Your task to perform on an android device: How do I get to the nearest Sprint Store? Image 0: 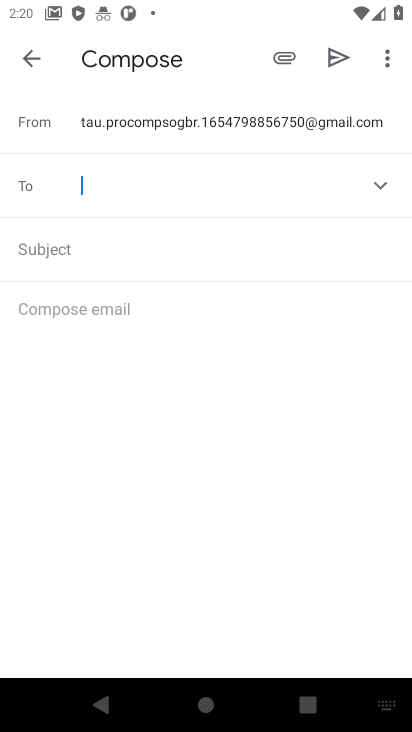
Step 0: press home button
Your task to perform on an android device: How do I get to the nearest Sprint Store? Image 1: 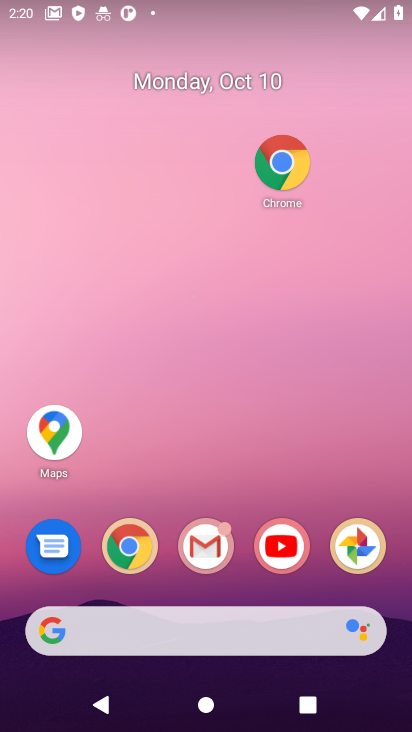
Step 1: click (130, 563)
Your task to perform on an android device: How do I get to the nearest Sprint Store? Image 2: 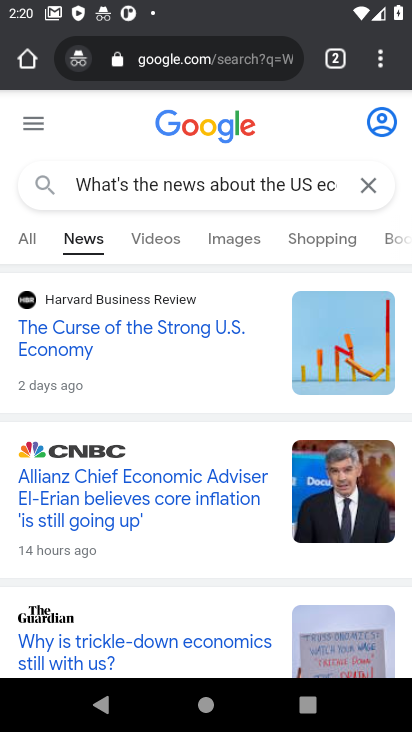
Step 2: click (150, 49)
Your task to perform on an android device: How do I get to the nearest Sprint Store? Image 3: 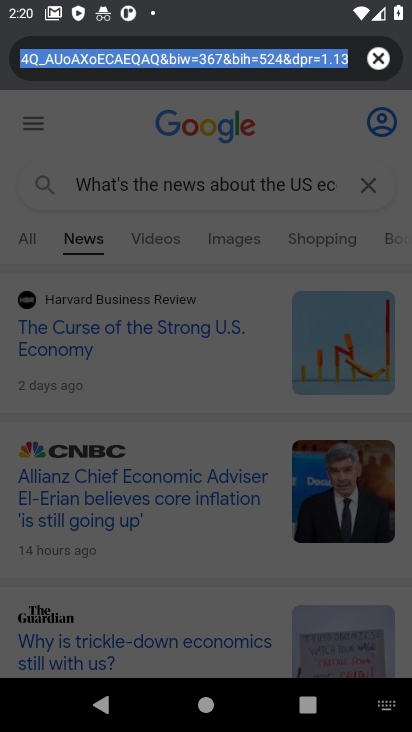
Step 3: click (383, 65)
Your task to perform on an android device: How do I get to the nearest Sprint Store? Image 4: 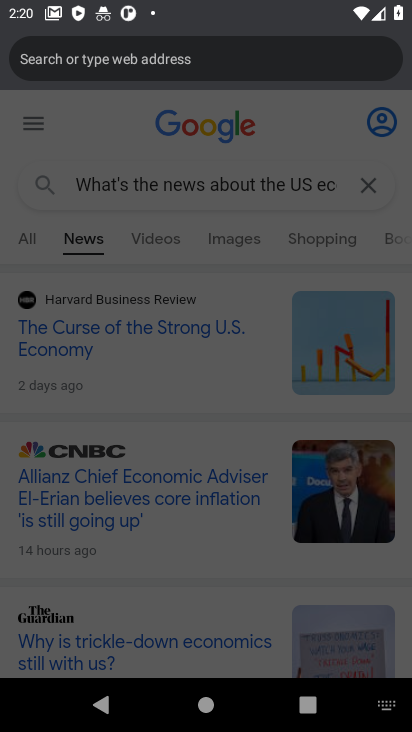
Step 4: type "How do I get to the nearest Sprint Store?"
Your task to perform on an android device: How do I get to the nearest Sprint Store? Image 5: 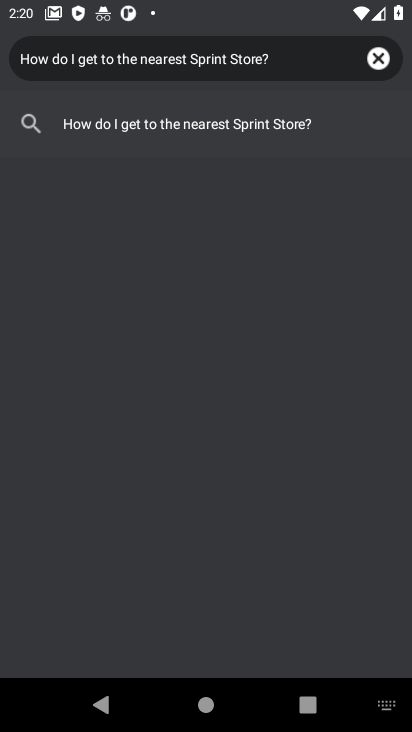
Step 5: type ""
Your task to perform on an android device: How do I get to the nearest Sprint Store? Image 6: 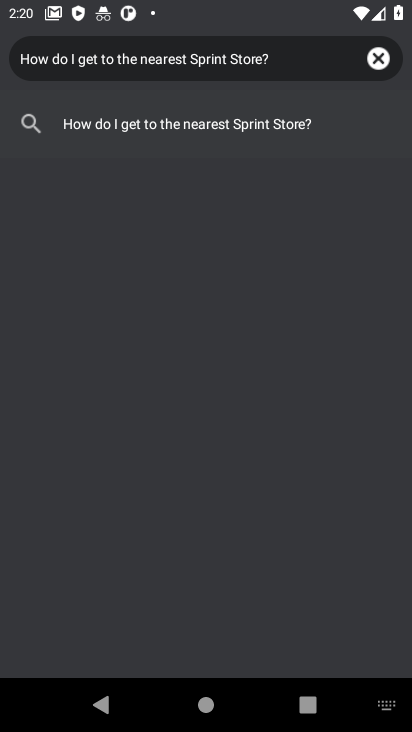
Step 6: click (186, 135)
Your task to perform on an android device: How do I get to the nearest Sprint Store? Image 7: 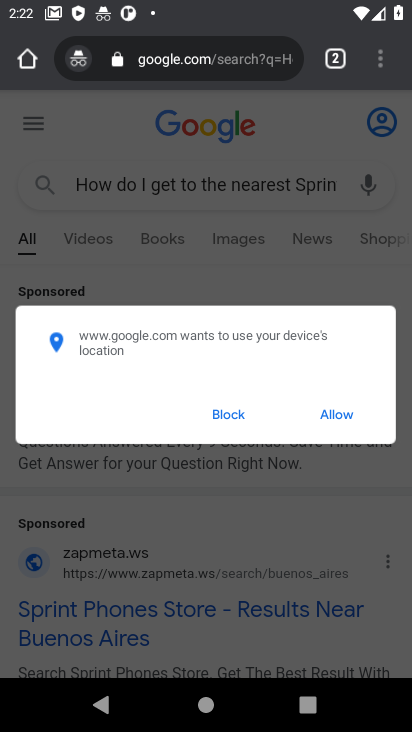
Step 7: click (354, 416)
Your task to perform on an android device: How do I get to the nearest Sprint Store? Image 8: 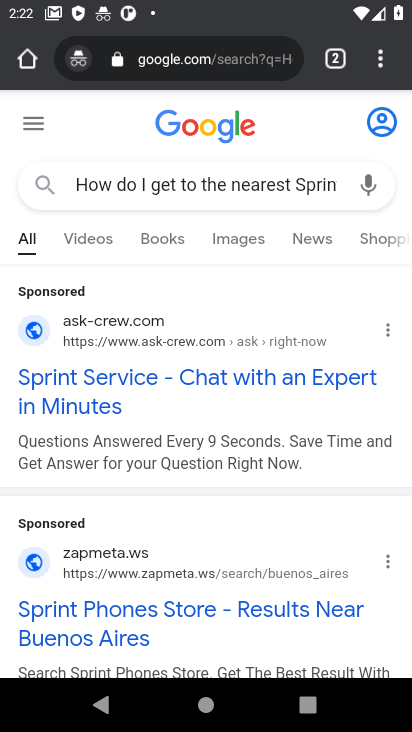
Step 8: click (183, 613)
Your task to perform on an android device: How do I get to the nearest Sprint Store? Image 9: 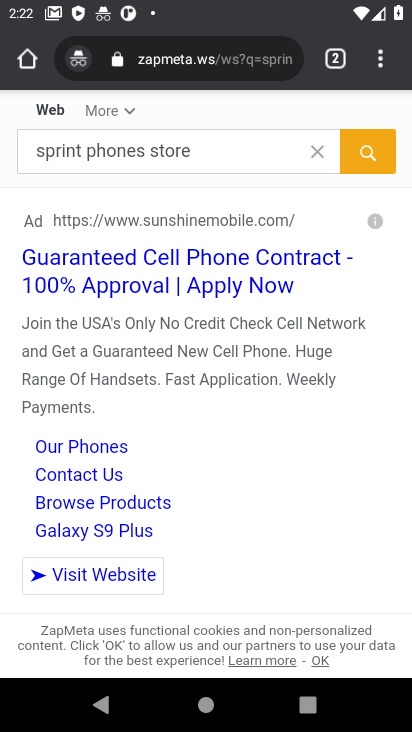
Step 9: task complete